Your task to perform on an android device: Go to accessibility settings Image 0: 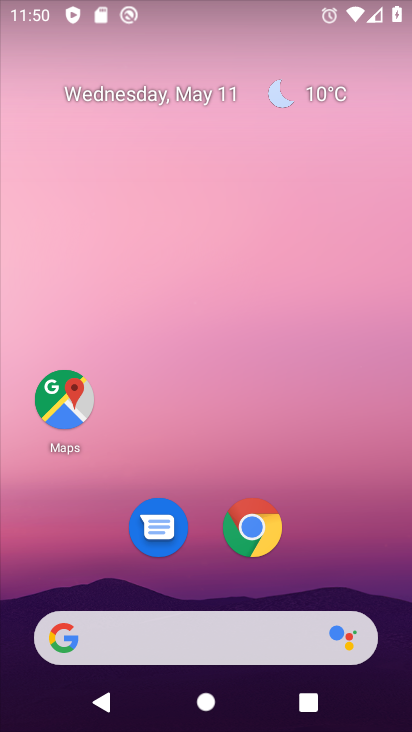
Step 0: drag from (218, 517) to (311, 5)
Your task to perform on an android device: Go to accessibility settings Image 1: 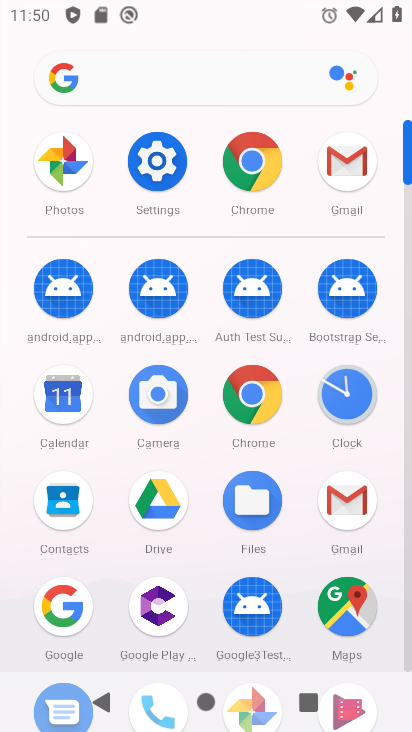
Step 1: click (169, 183)
Your task to perform on an android device: Go to accessibility settings Image 2: 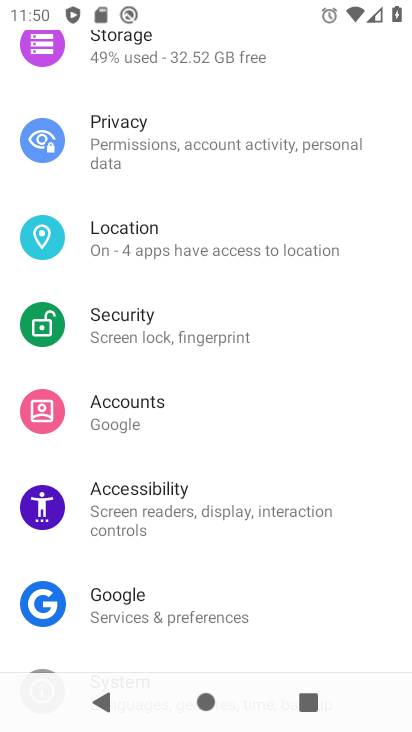
Step 2: click (155, 490)
Your task to perform on an android device: Go to accessibility settings Image 3: 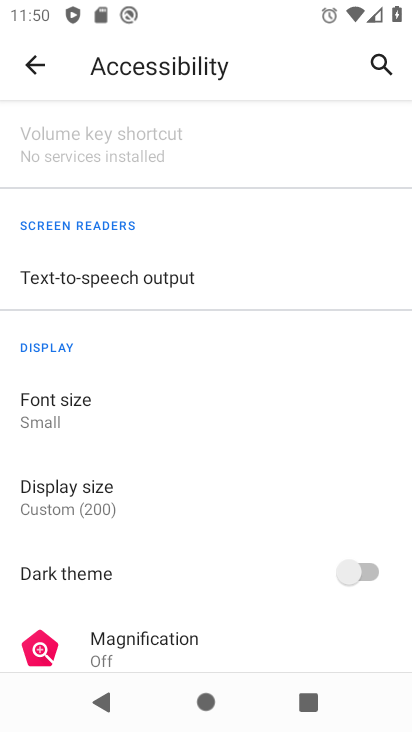
Step 3: task complete